Your task to perform on an android device: Open Google Maps and go to "Timeline" Image 0: 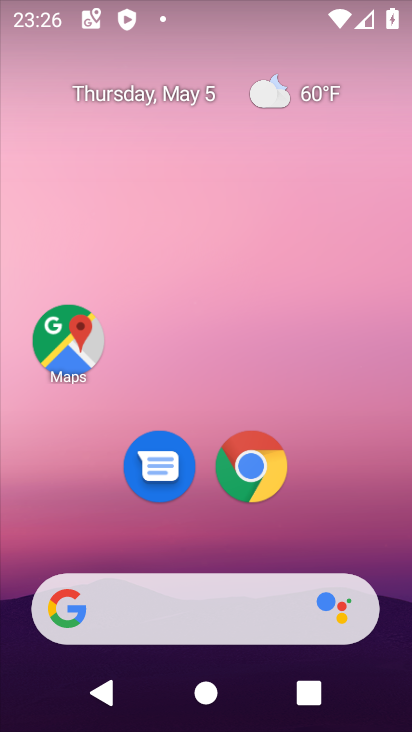
Step 0: drag from (194, 571) to (192, 196)
Your task to perform on an android device: Open Google Maps and go to "Timeline" Image 1: 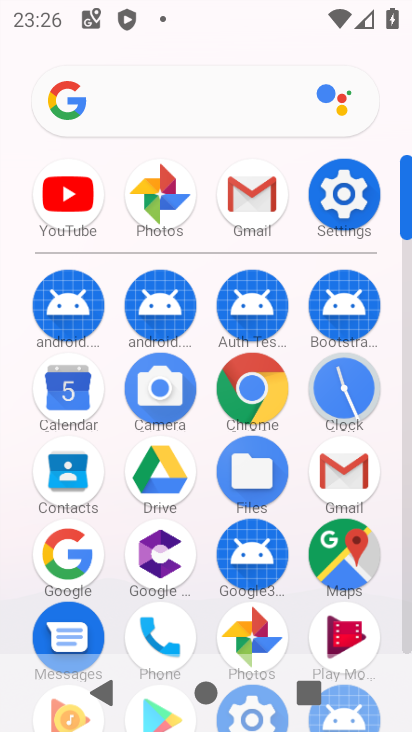
Step 1: drag from (109, 598) to (145, 277)
Your task to perform on an android device: Open Google Maps and go to "Timeline" Image 2: 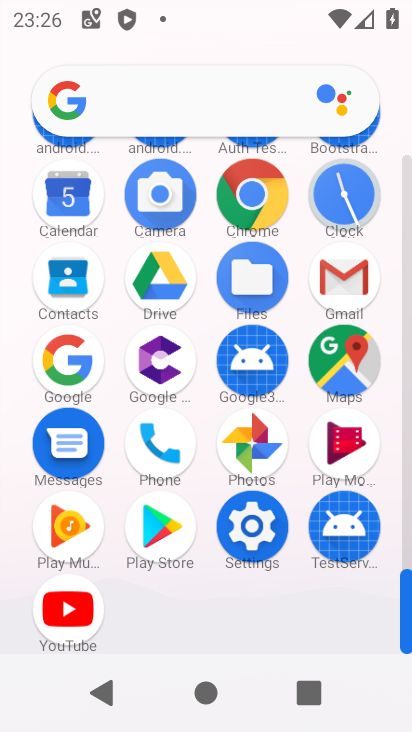
Step 2: drag from (103, 185) to (127, 443)
Your task to perform on an android device: Open Google Maps and go to "Timeline" Image 3: 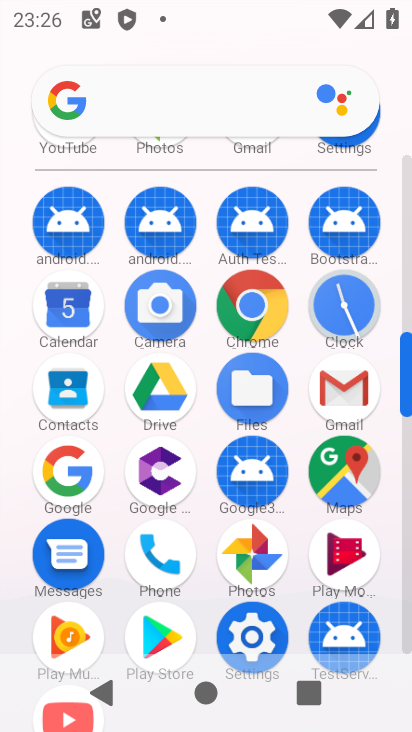
Step 3: click (331, 479)
Your task to perform on an android device: Open Google Maps and go to "Timeline" Image 4: 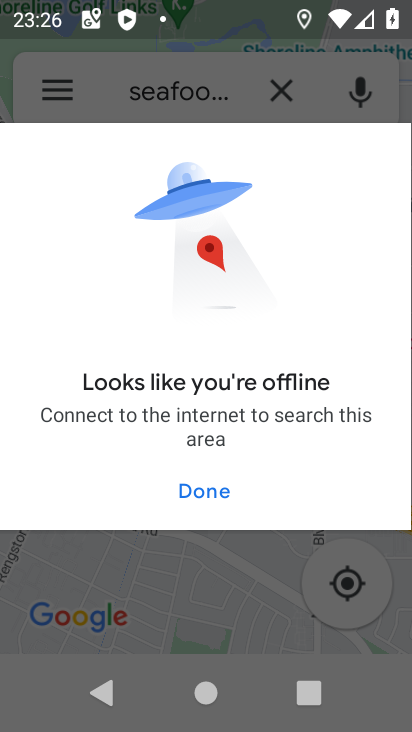
Step 4: click (196, 491)
Your task to perform on an android device: Open Google Maps and go to "Timeline" Image 5: 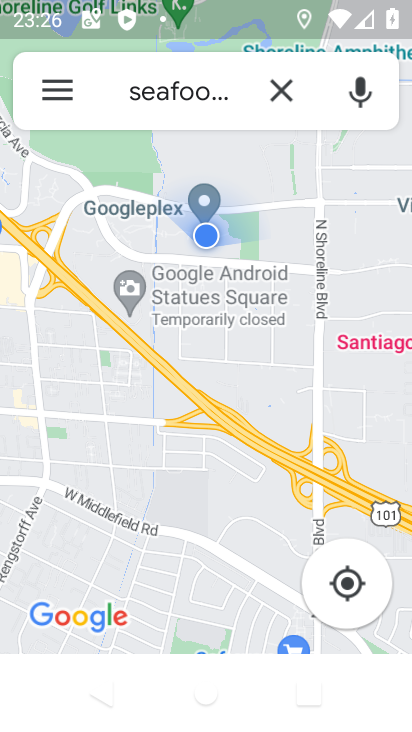
Step 5: click (65, 85)
Your task to perform on an android device: Open Google Maps and go to "Timeline" Image 6: 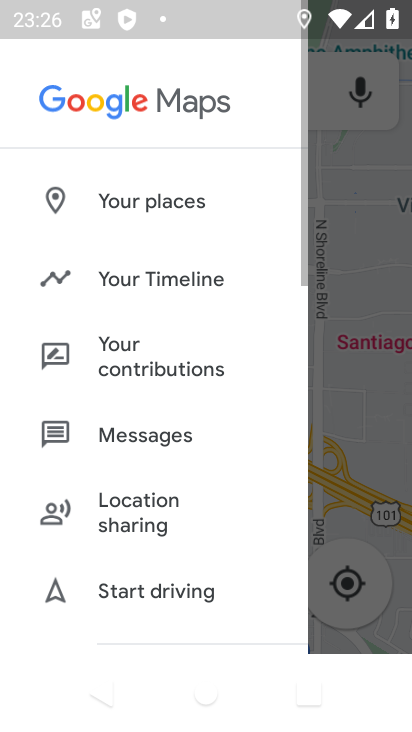
Step 6: click (165, 291)
Your task to perform on an android device: Open Google Maps and go to "Timeline" Image 7: 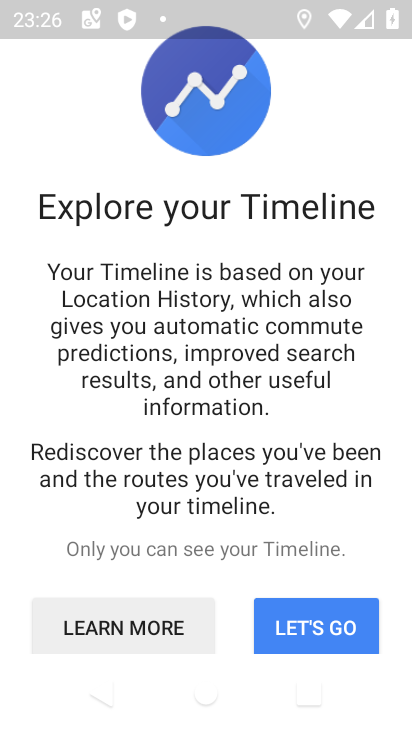
Step 7: click (309, 629)
Your task to perform on an android device: Open Google Maps and go to "Timeline" Image 8: 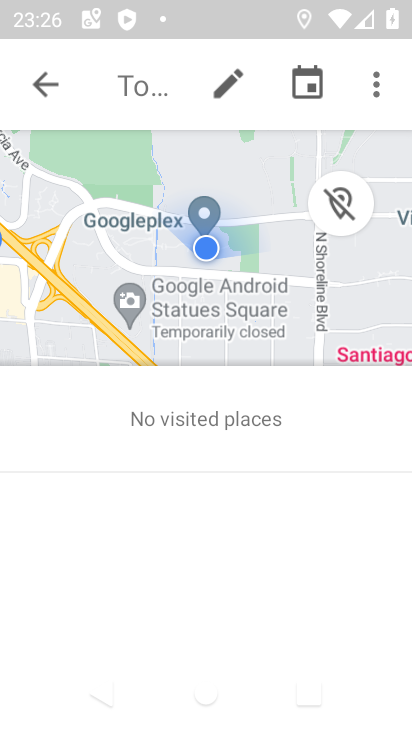
Step 8: task complete